Your task to perform on an android device: install app "Paramount+ | Peak Streaming" Image 0: 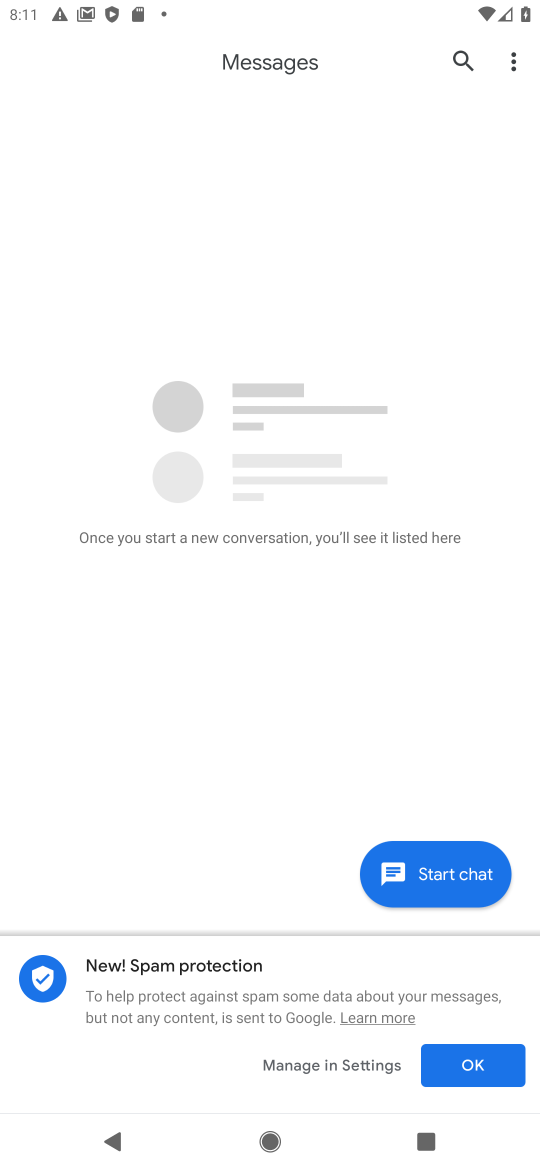
Step 0: press home button
Your task to perform on an android device: install app "Paramount+ | Peak Streaming" Image 1: 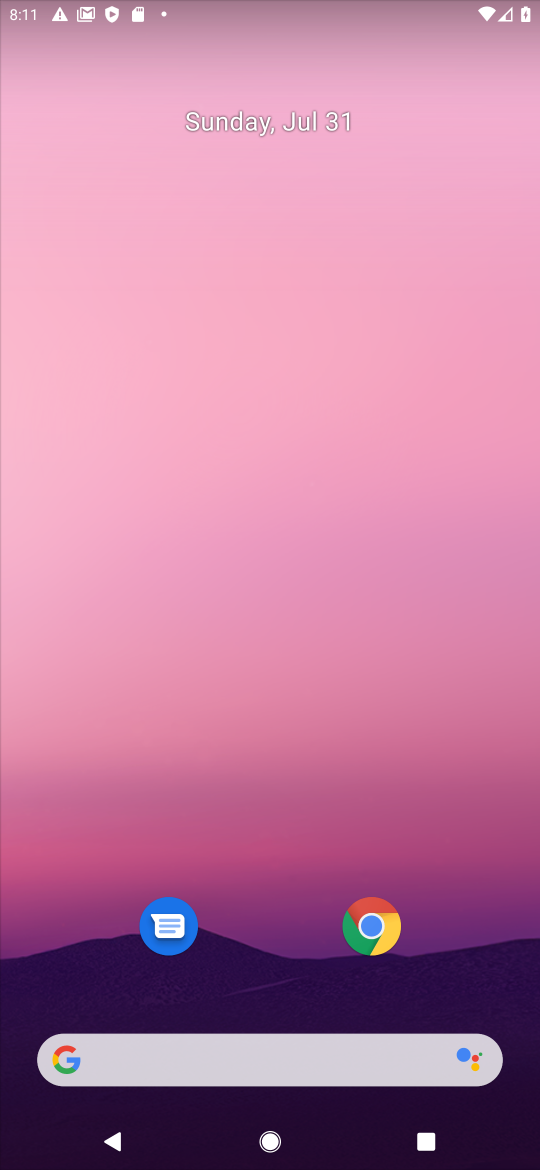
Step 1: drag from (282, 845) to (374, 100)
Your task to perform on an android device: install app "Paramount+ | Peak Streaming" Image 2: 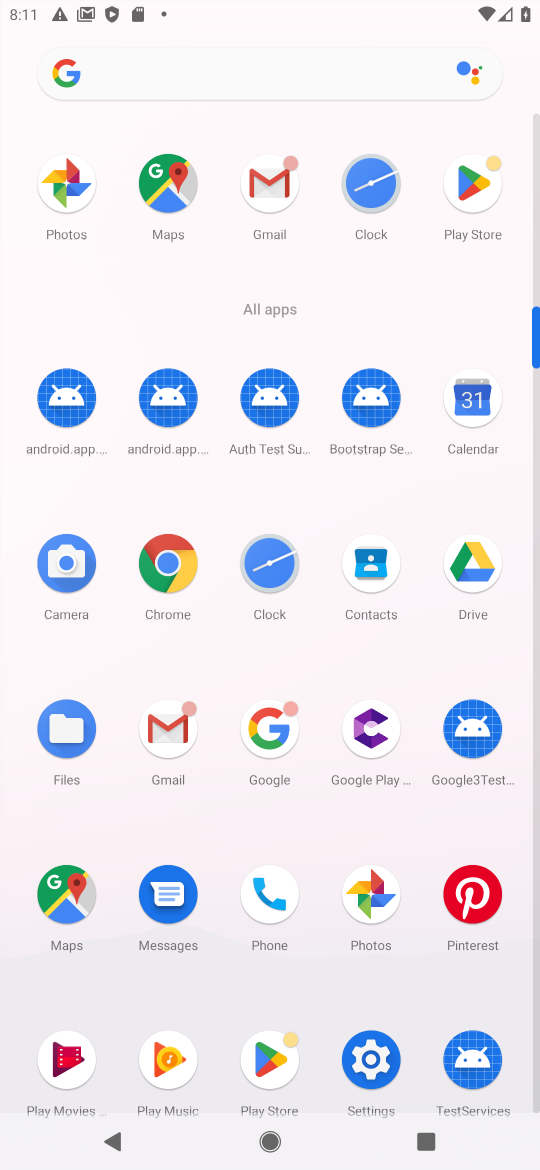
Step 2: click (464, 182)
Your task to perform on an android device: install app "Paramount+ | Peak Streaming" Image 3: 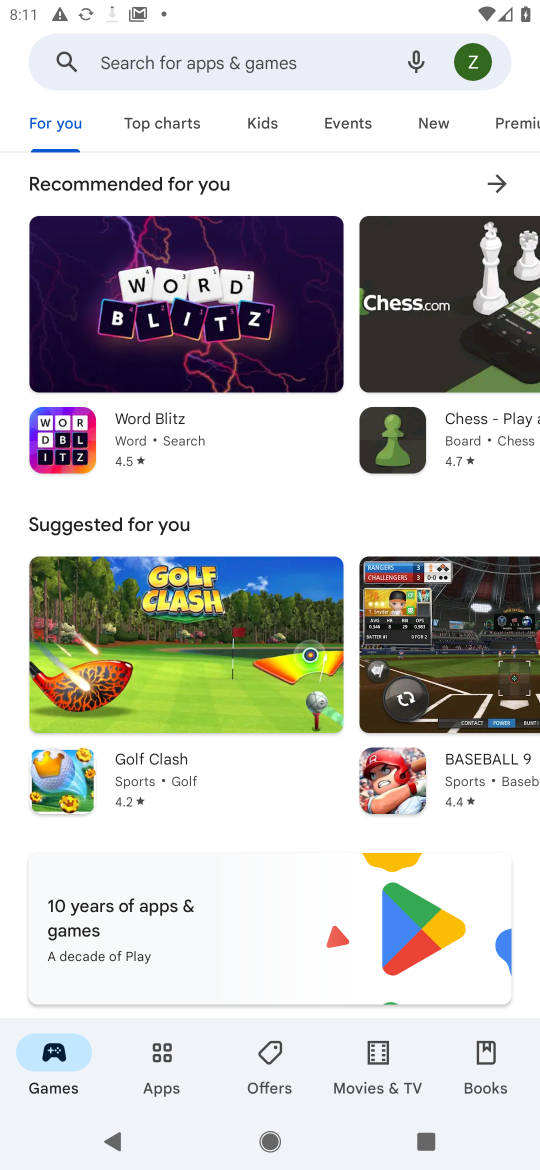
Step 3: click (186, 63)
Your task to perform on an android device: install app "Paramount+ | Peak Streaming" Image 4: 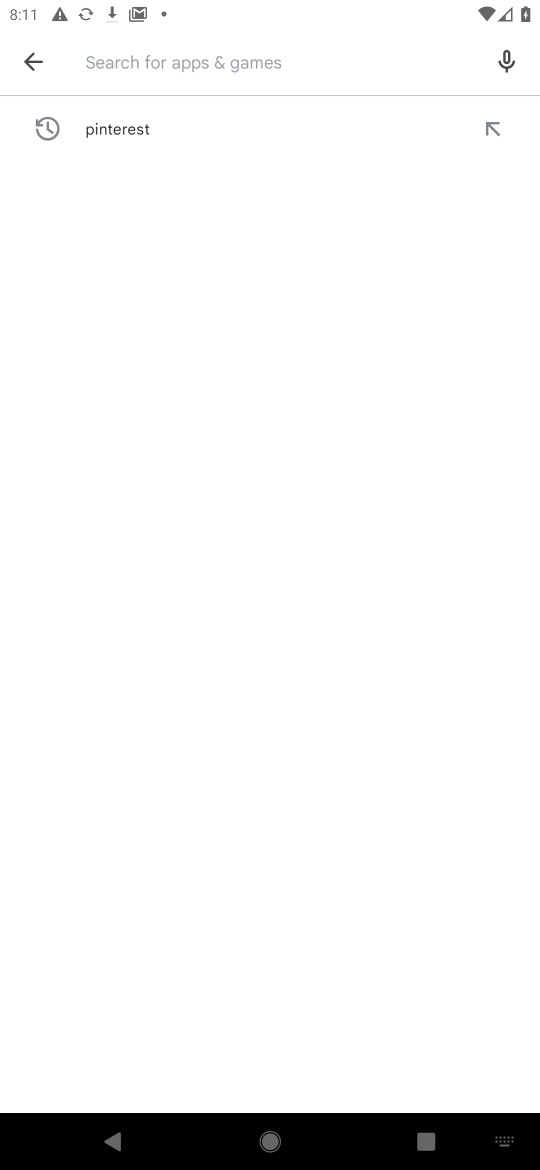
Step 4: type "paramount +"
Your task to perform on an android device: install app "Paramount+ | Peak Streaming" Image 5: 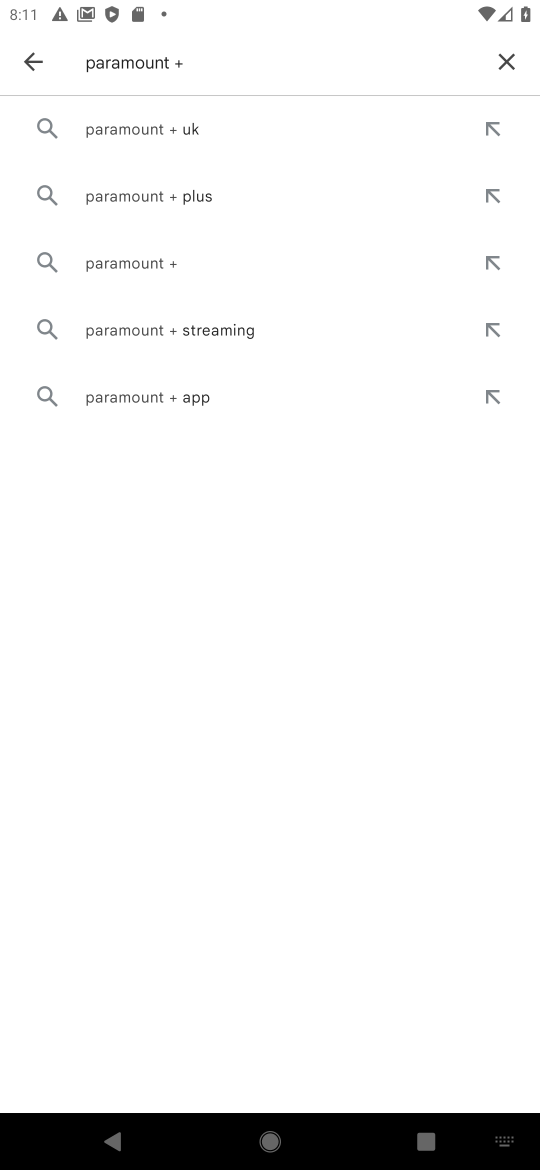
Step 5: click (137, 254)
Your task to perform on an android device: install app "Paramount+ | Peak Streaming" Image 6: 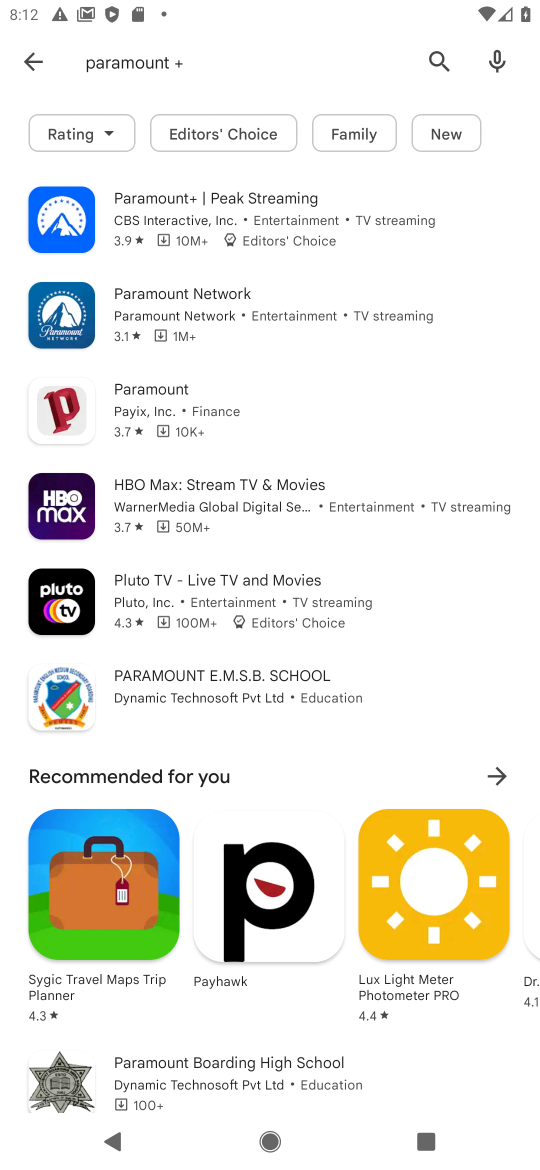
Step 6: click (142, 250)
Your task to perform on an android device: install app "Paramount+ | Peak Streaming" Image 7: 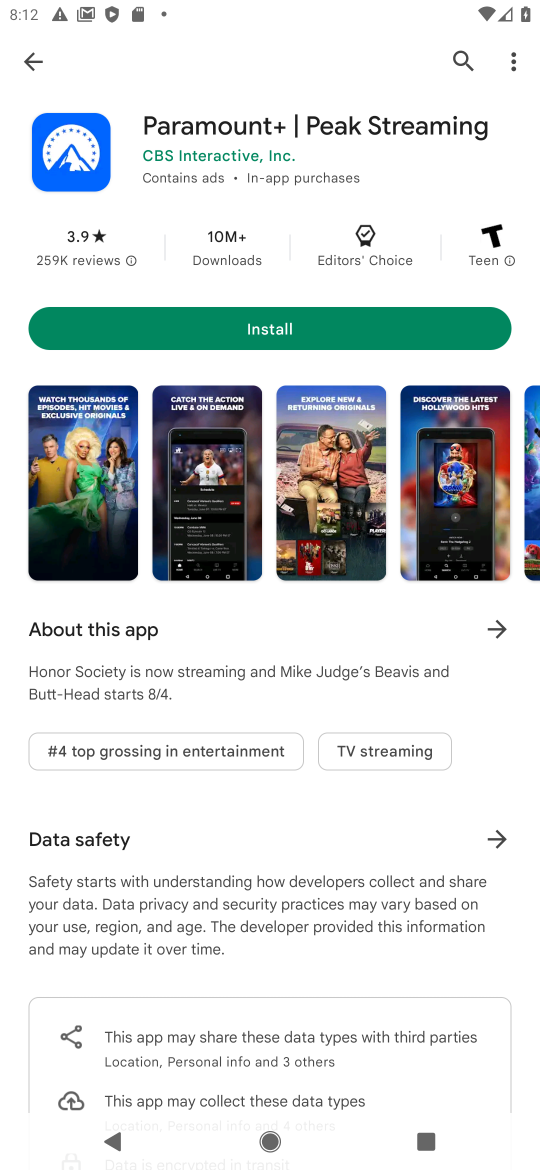
Step 7: click (252, 333)
Your task to perform on an android device: install app "Paramount+ | Peak Streaming" Image 8: 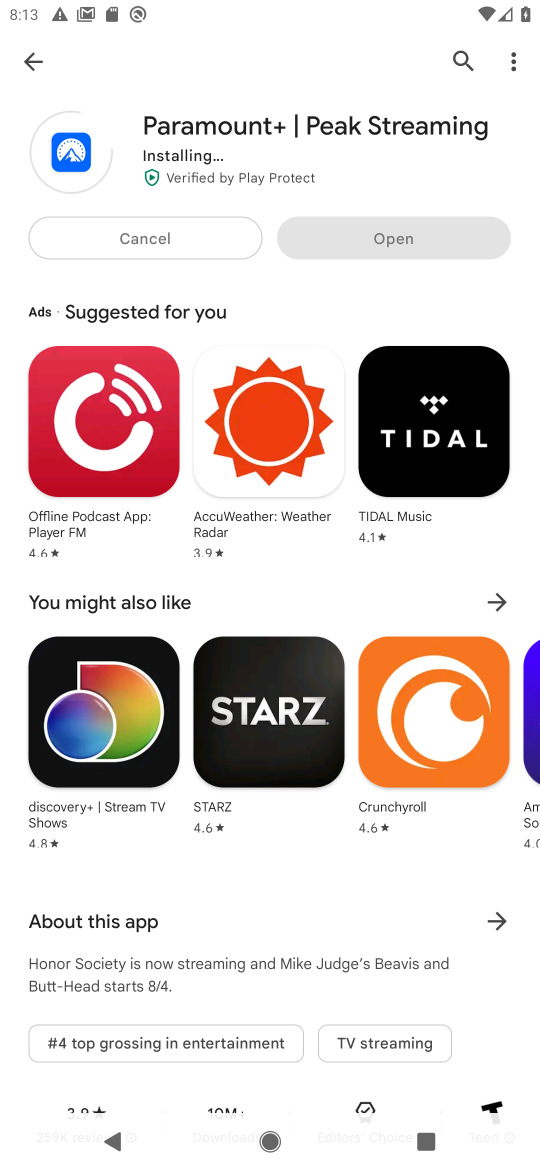
Step 8: click (39, 37)
Your task to perform on an android device: install app "Paramount+ | Peak Streaming" Image 9: 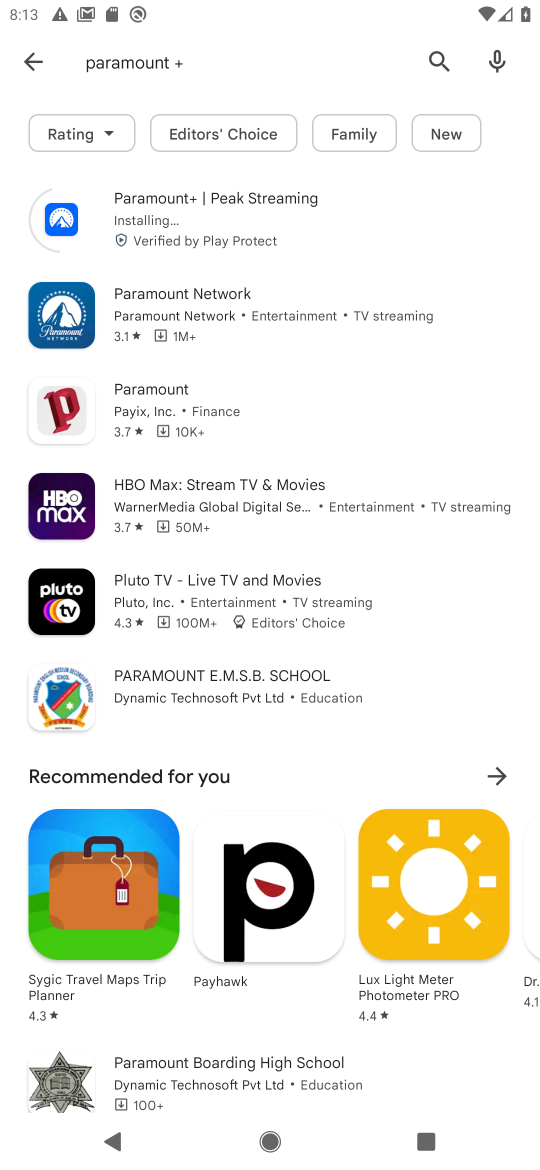
Step 9: click (171, 216)
Your task to perform on an android device: install app "Paramount+ | Peak Streaming" Image 10: 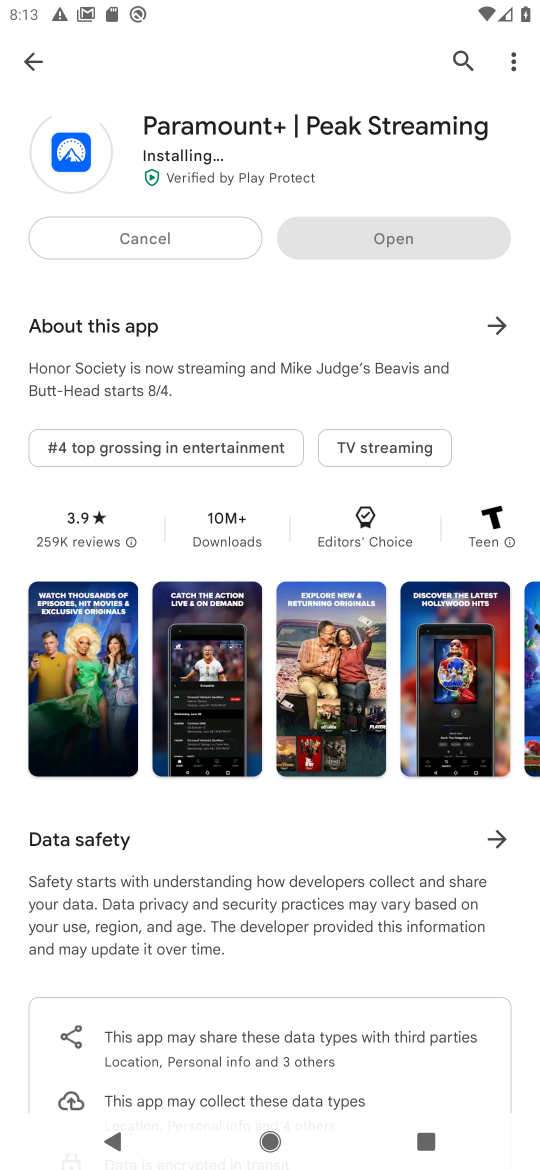
Step 10: click (29, 45)
Your task to perform on an android device: install app "Paramount+ | Peak Streaming" Image 11: 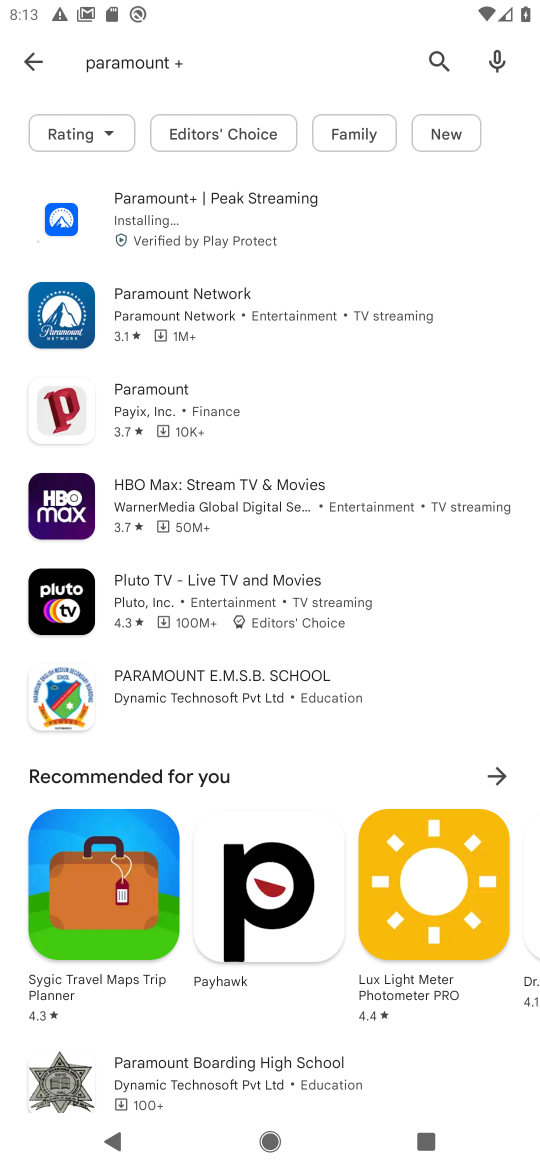
Step 11: click (151, 243)
Your task to perform on an android device: install app "Paramount+ | Peak Streaming" Image 12: 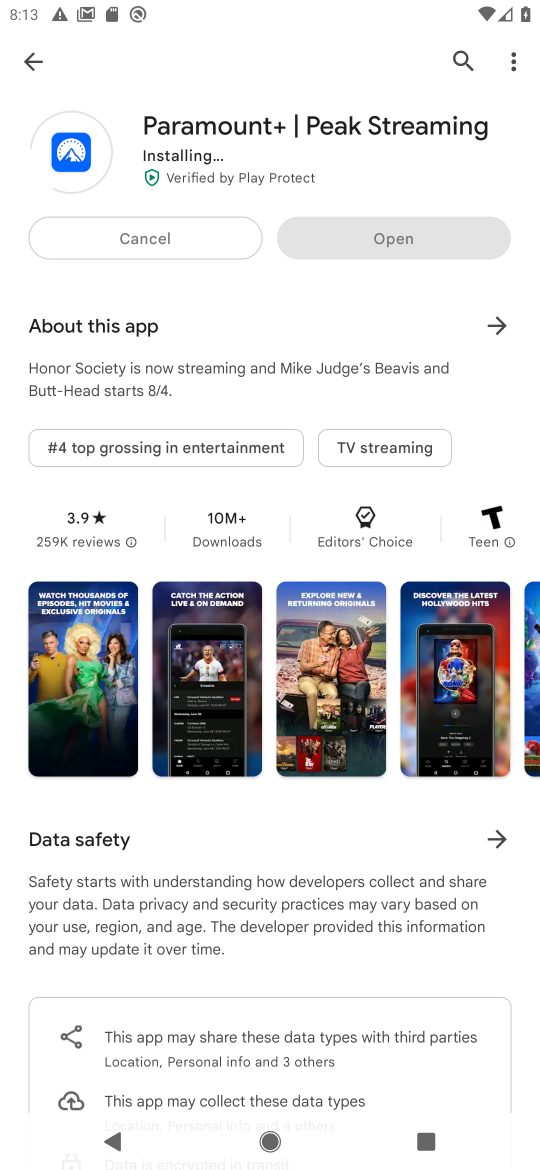
Step 12: click (40, 55)
Your task to perform on an android device: install app "Paramount+ | Peak Streaming" Image 13: 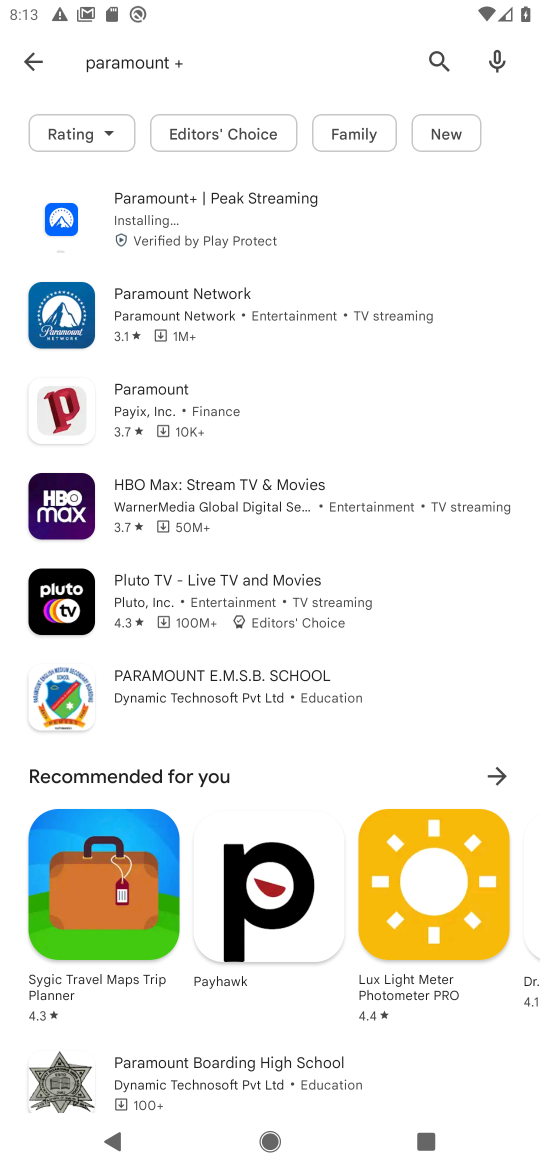
Step 13: click (38, 51)
Your task to perform on an android device: install app "Paramount+ | Peak Streaming" Image 14: 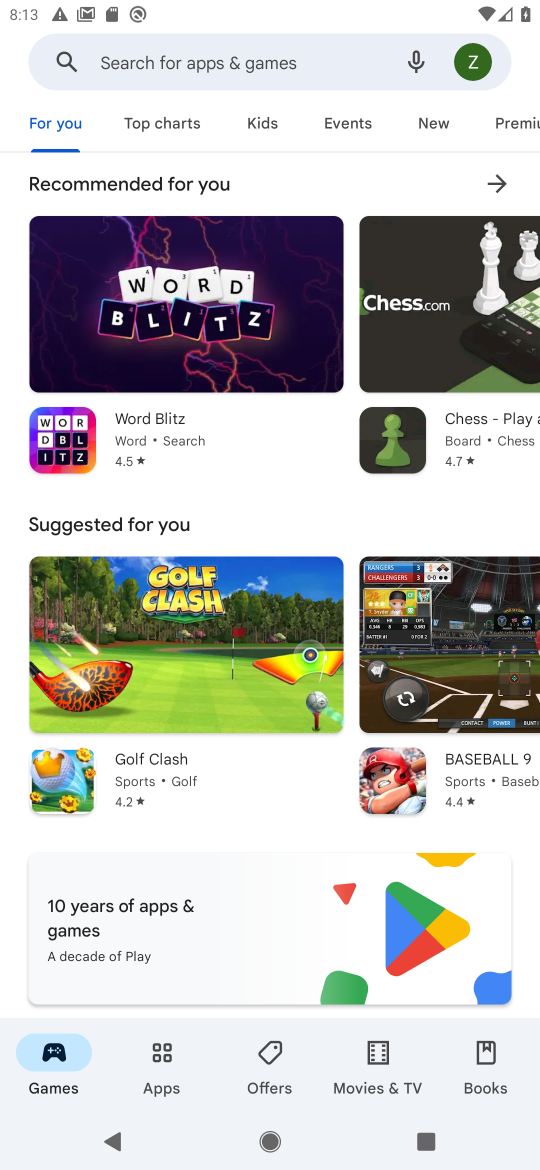
Step 14: click (468, 68)
Your task to perform on an android device: install app "Paramount+ | Peak Streaming" Image 15: 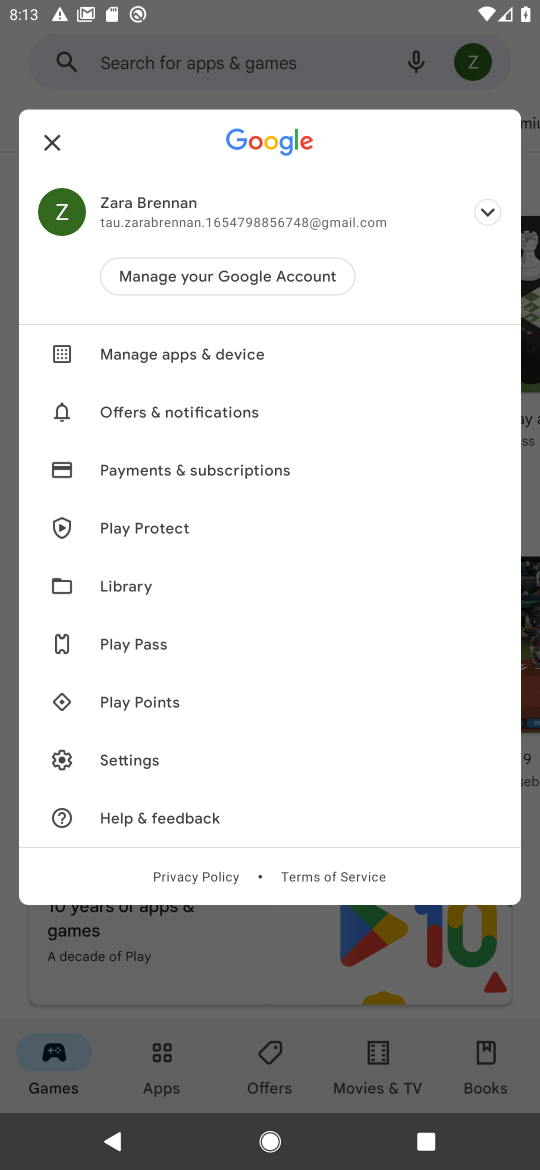
Step 15: click (179, 342)
Your task to perform on an android device: install app "Paramount+ | Peak Streaming" Image 16: 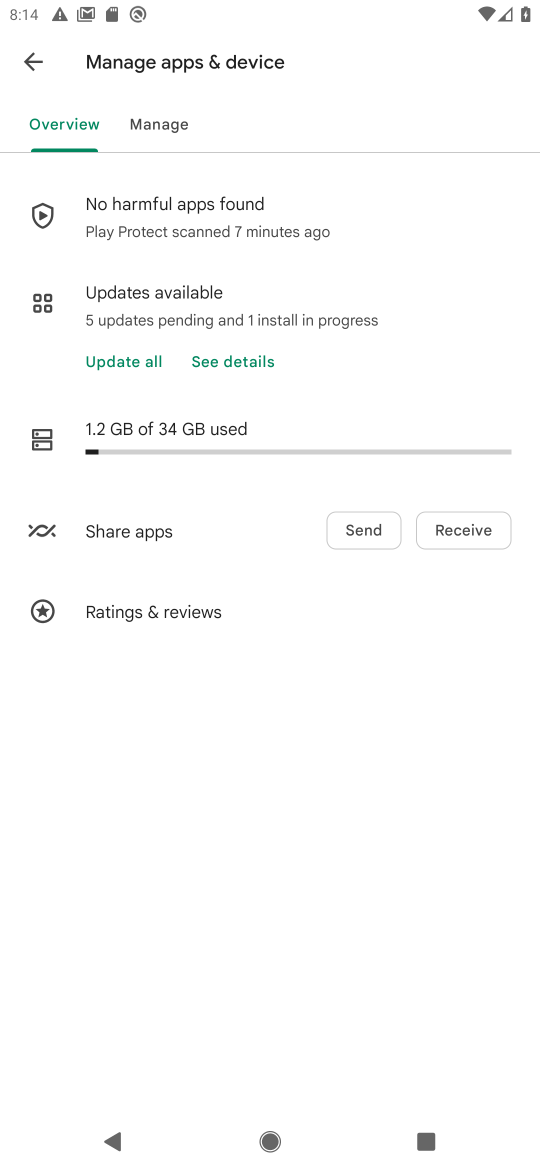
Step 16: click (146, 295)
Your task to perform on an android device: install app "Paramount+ | Peak Streaming" Image 17: 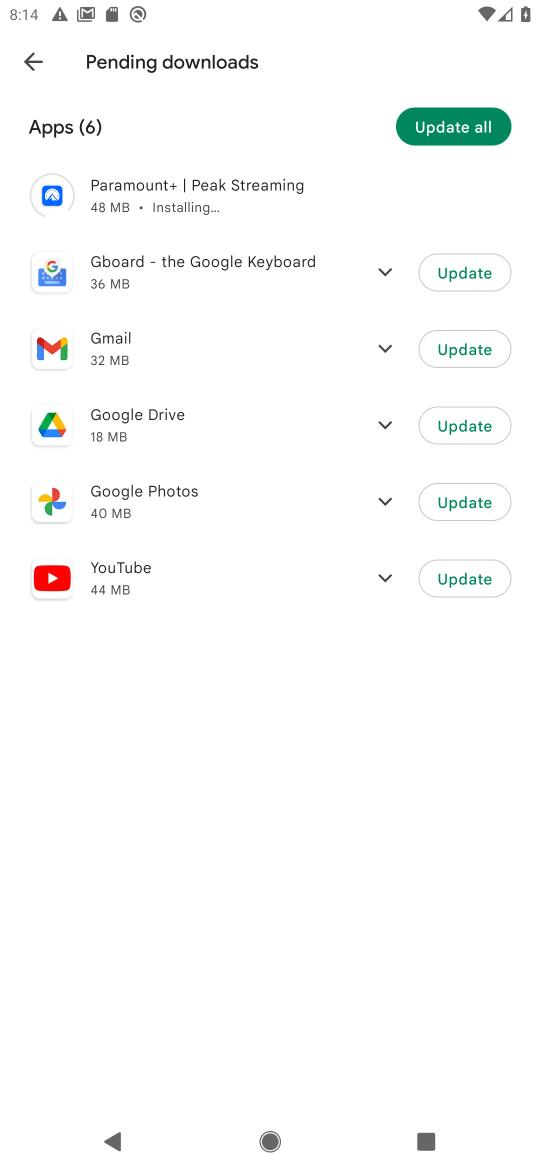
Step 17: click (160, 193)
Your task to perform on an android device: install app "Paramount+ | Peak Streaming" Image 18: 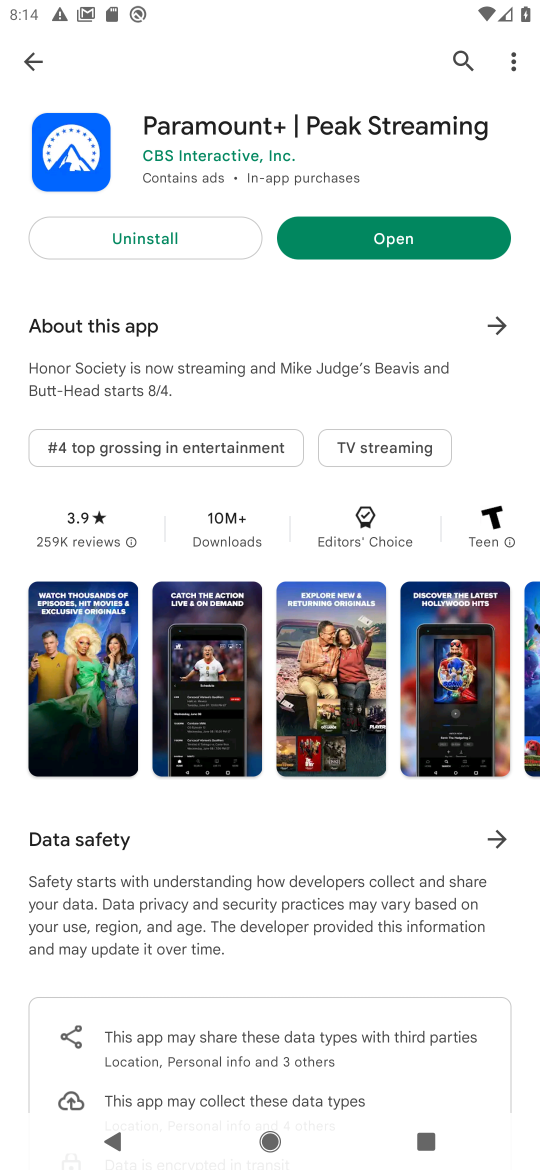
Step 18: task complete